Your task to perform on an android device: Open Google Maps and go to "Timeline" Image 0: 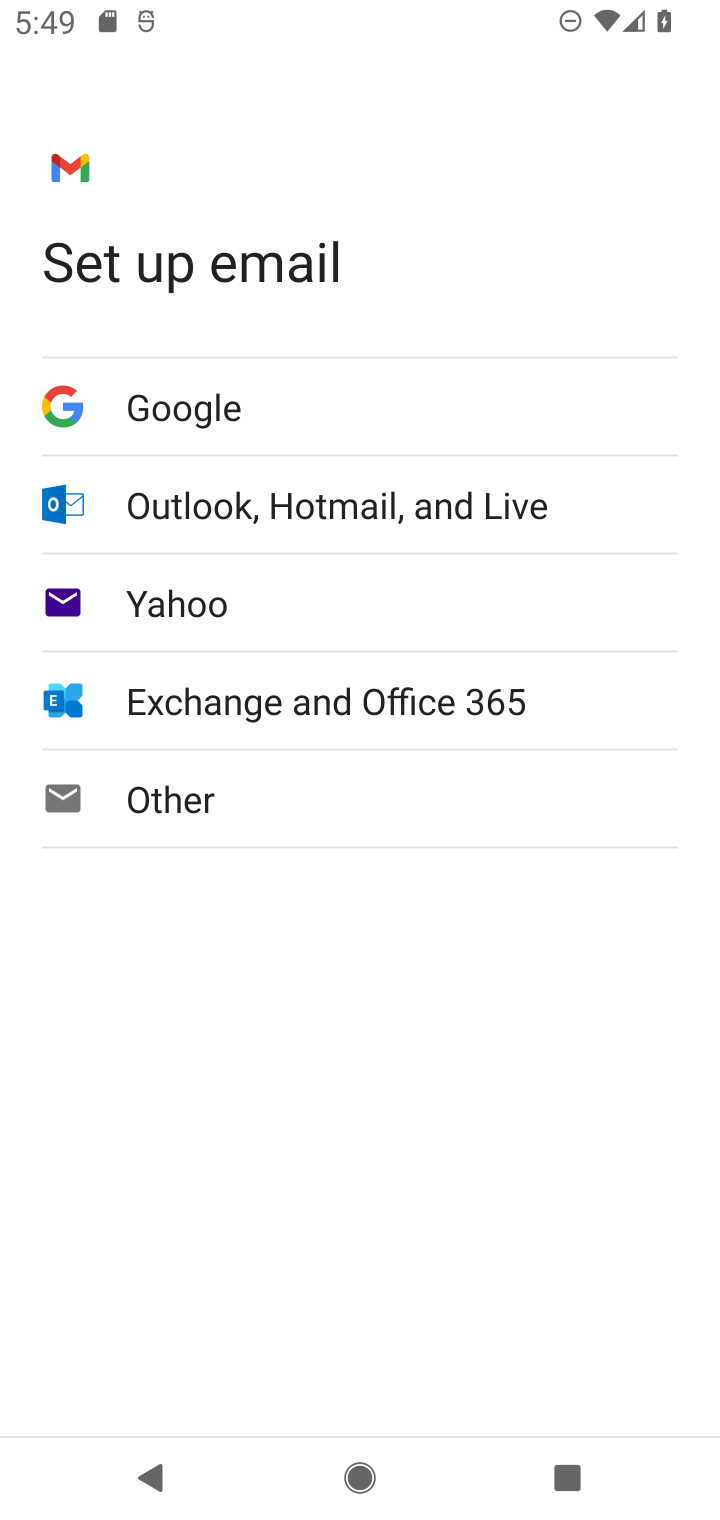
Step 0: press home button
Your task to perform on an android device: Open Google Maps and go to "Timeline" Image 1: 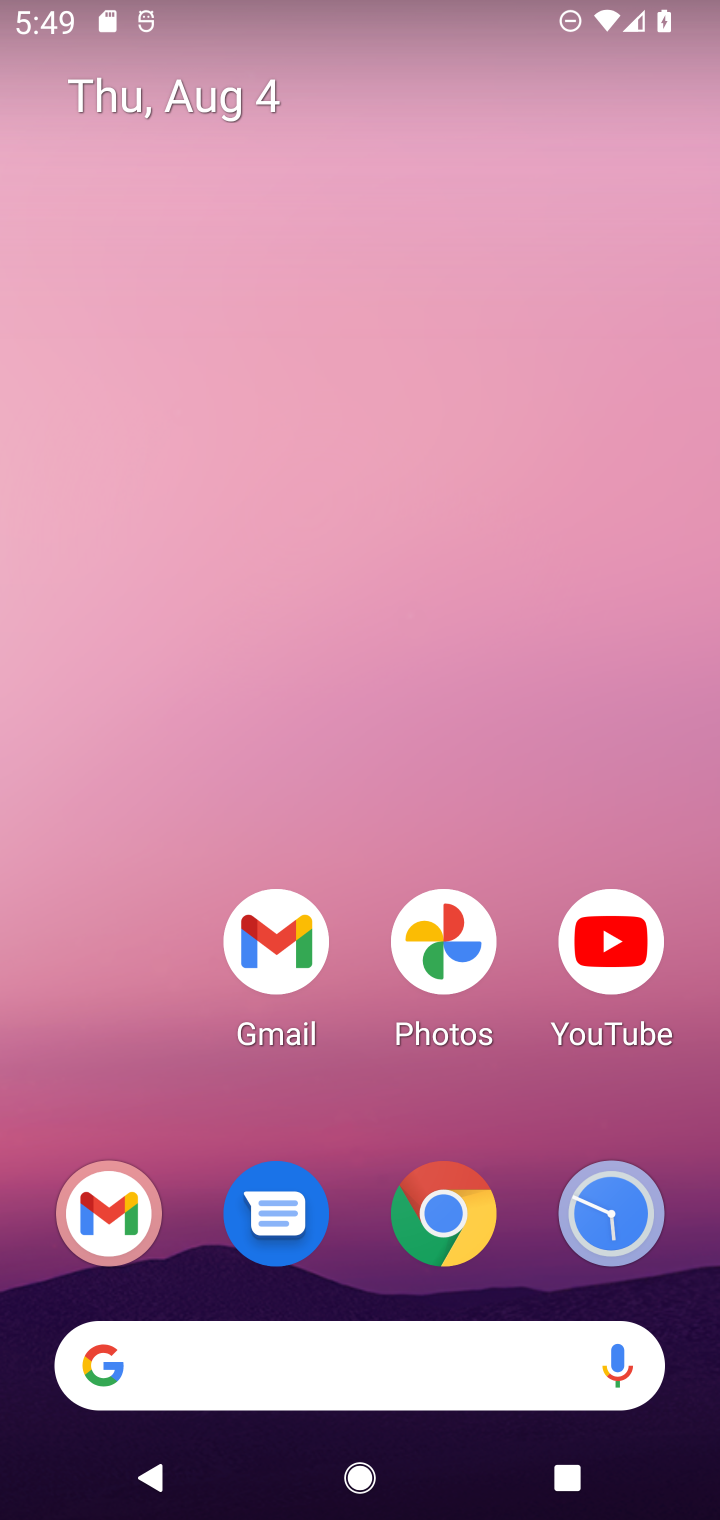
Step 1: drag from (146, 1107) to (180, 260)
Your task to perform on an android device: Open Google Maps and go to "Timeline" Image 2: 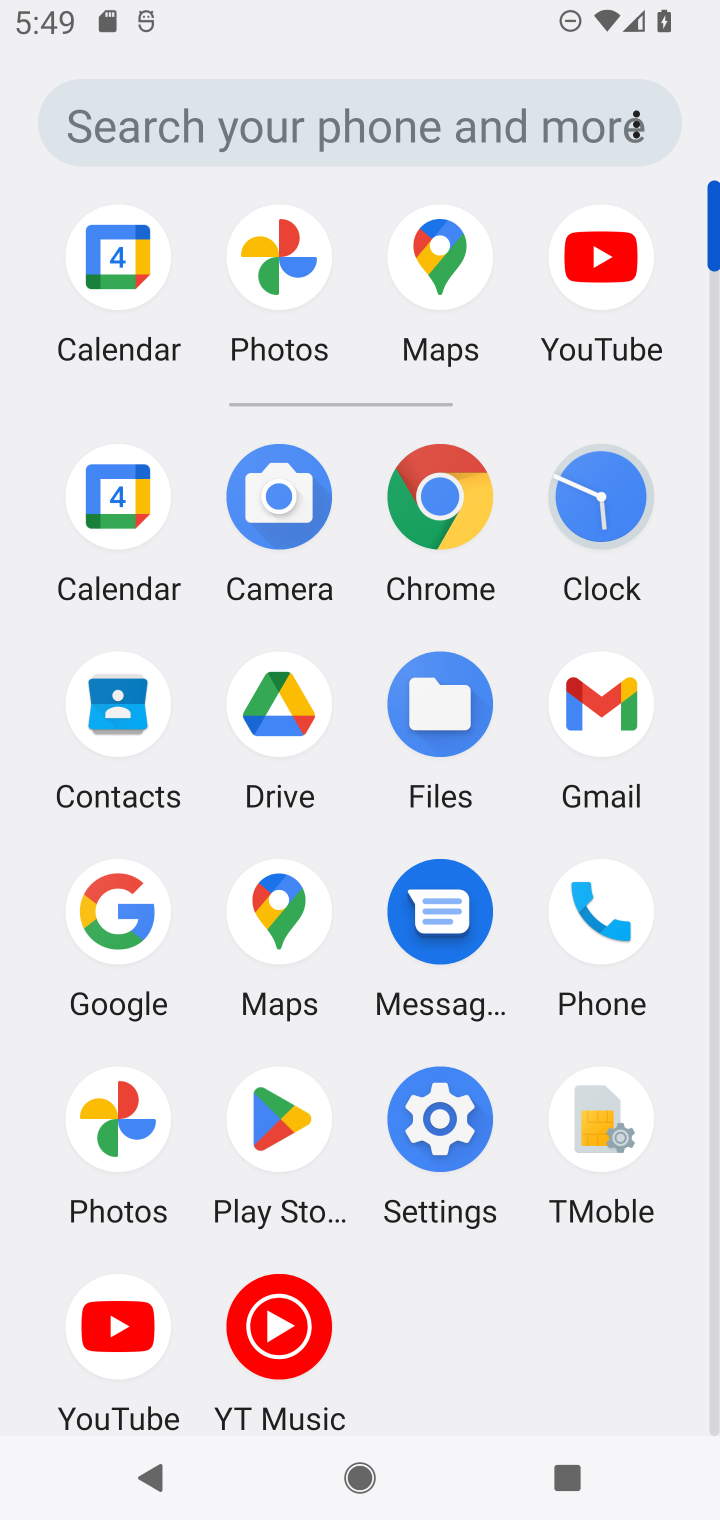
Step 2: click (276, 926)
Your task to perform on an android device: Open Google Maps and go to "Timeline" Image 3: 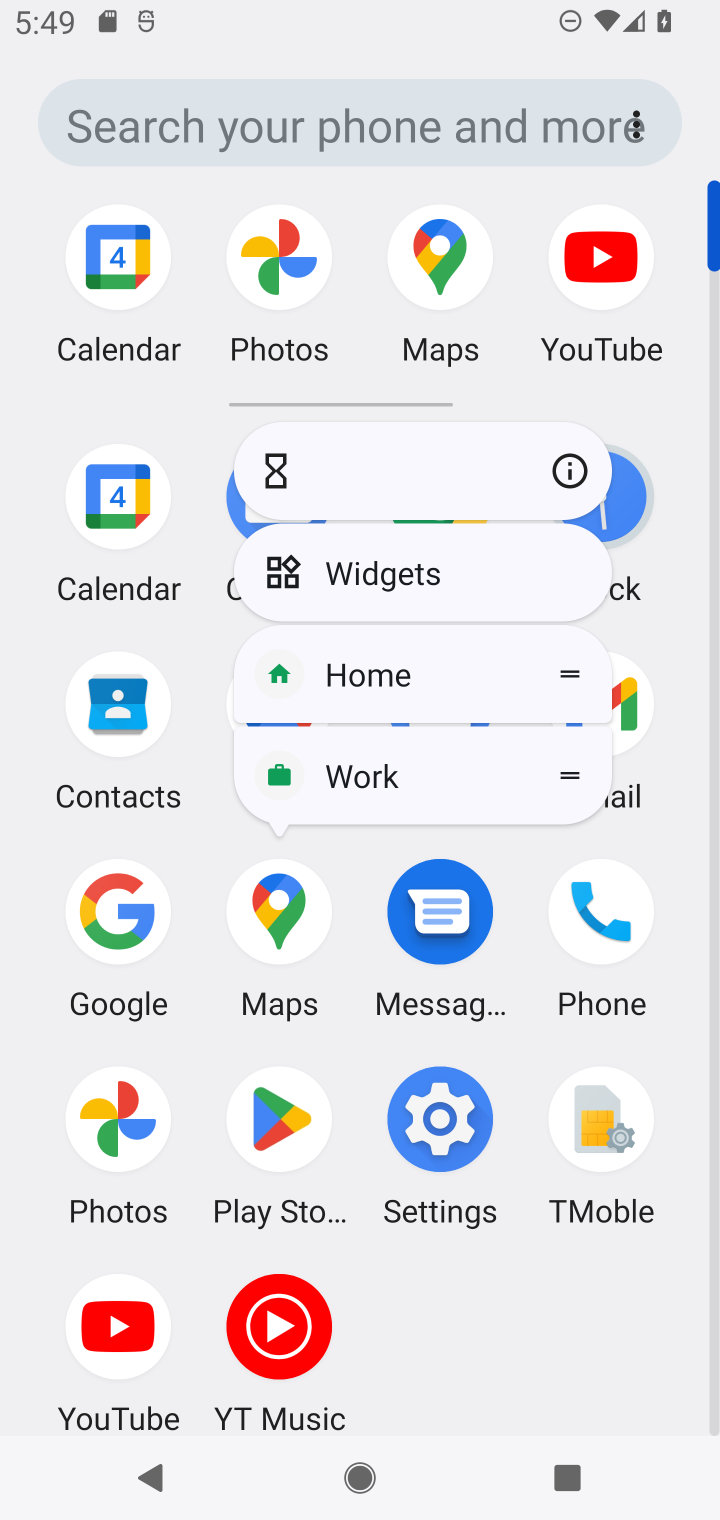
Step 3: click (276, 926)
Your task to perform on an android device: Open Google Maps and go to "Timeline" Image 4: 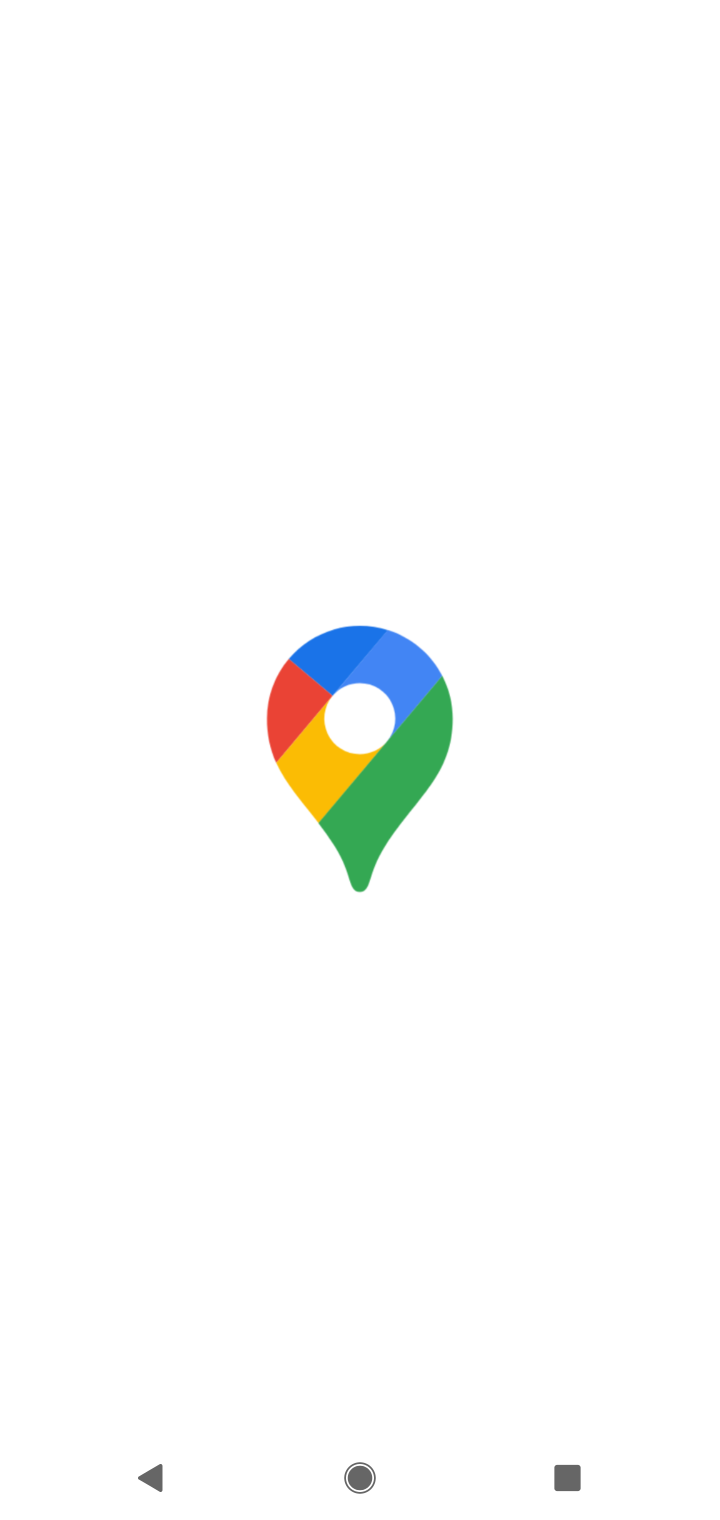
Step 4: task complete